Your task to perform on an android device: make emails show in primary in the gmail app Image 0: 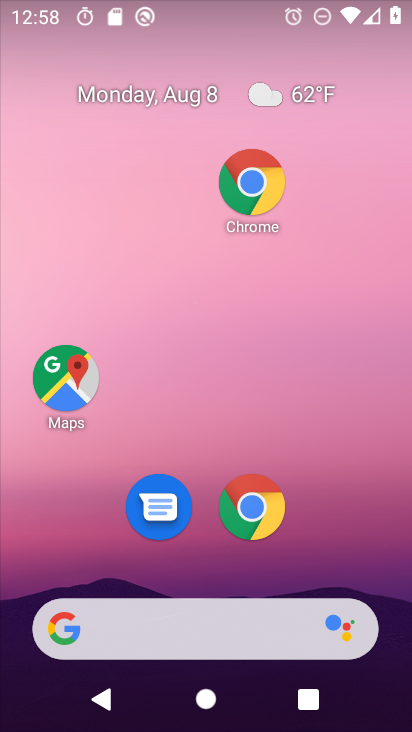
Step 0: drag from (343, 529) to (341, 18)
Your task to perform on an android device: make emails show in primary in the gmail app Image 1: 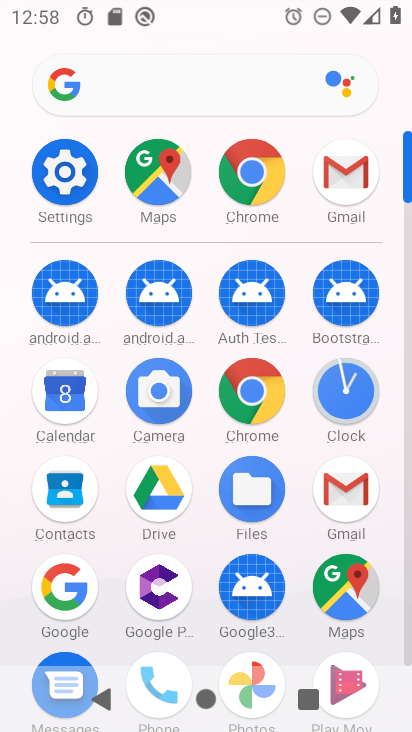
Step 1: click (328, 499)
Your task to perform on an android device: make emails show in primary in the gmail app Image 2: 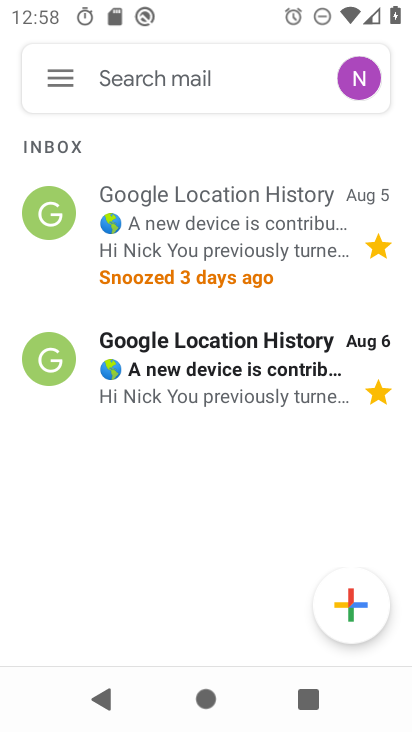
Step 2: click (61, 68)
Your task to perform on an android device: make emails show in primary in the gmail app Image 3: 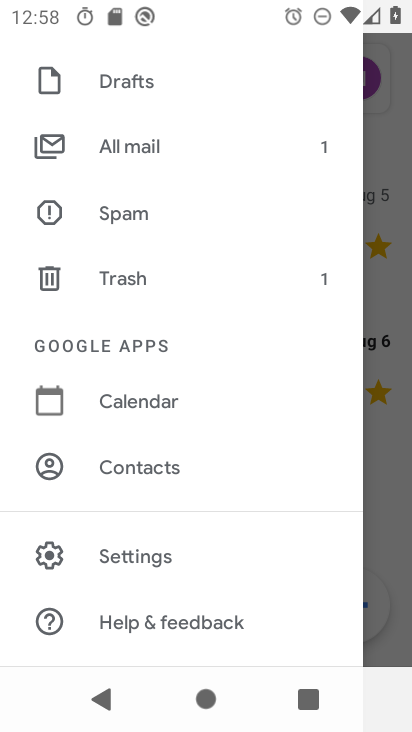
Step 3: click (155, 553)
Your task to perform on an android device: make emails show in primary in the gmail app Image 4: 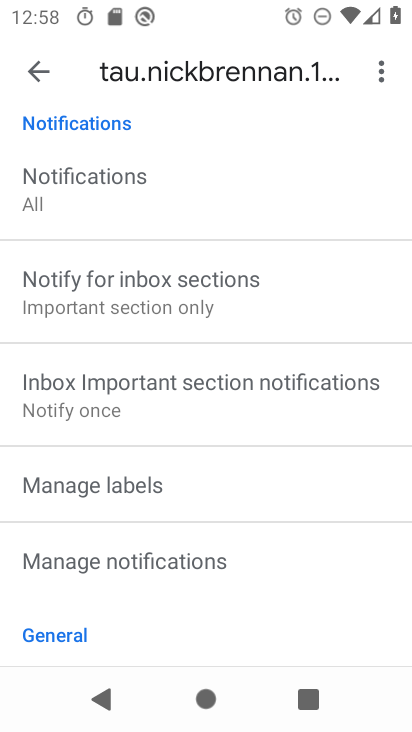
Step 4: drag from (167, 195) to (188, 693)
Your task to perform on an android device: make emails show in primary in the gmail app Image 5: 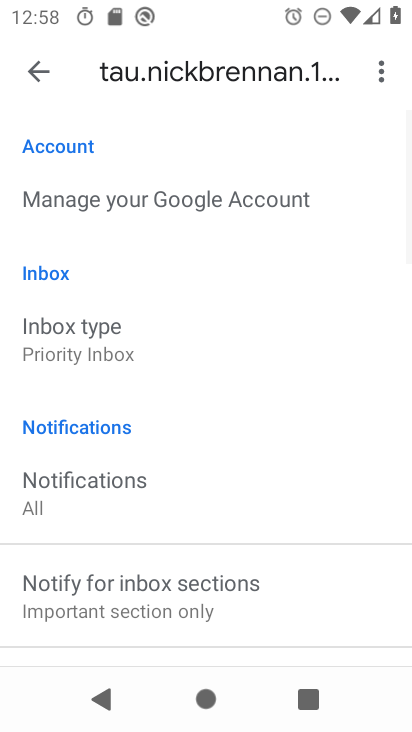
Step 5: click (93, 326)
Your task to perform on an android device: make emails show in primary in the gmail app Image 6: 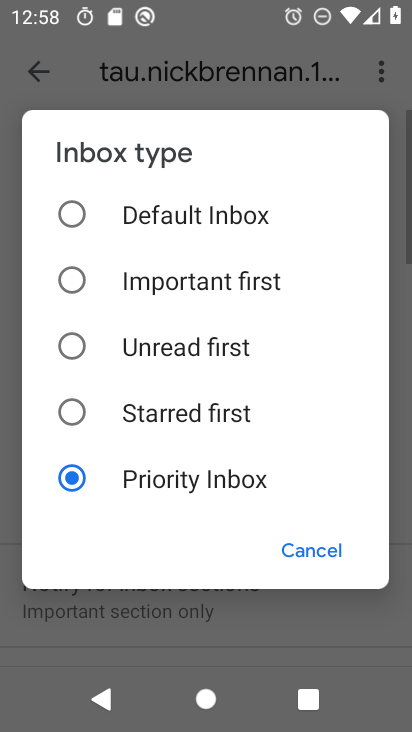
Step 6: click (136, 204)
Your task to perform on an android device: make emails show in primary in the gmail app Image 7: 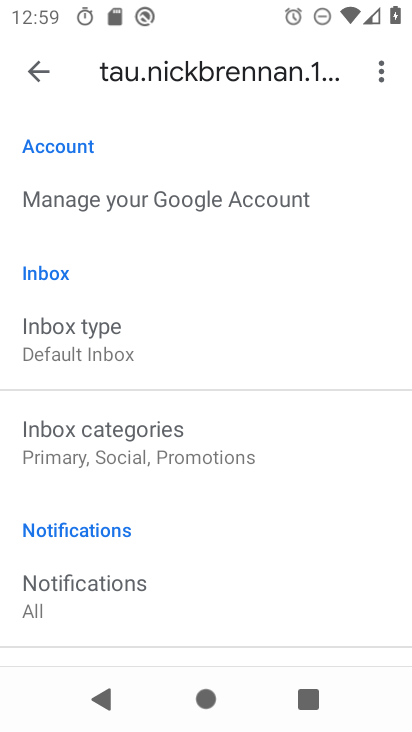
Step 7: click (198, 468)
Your task to perform on an android device: make emails show in primary in the gmail app Image 8: 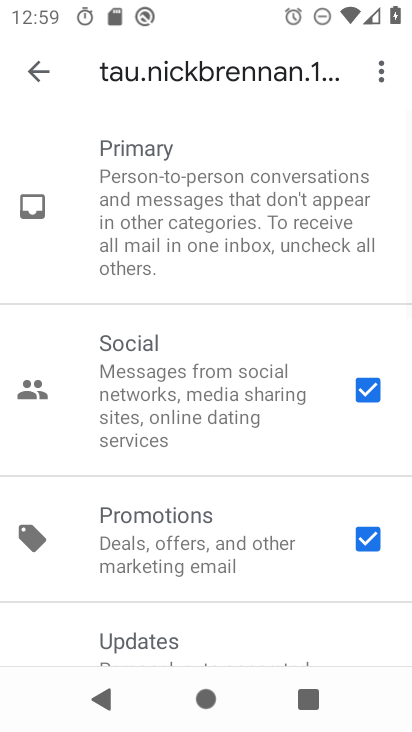
Step 8: task complete